Your task to perform on an android device: Search for vegetarian restaurants on Maps Image 0: 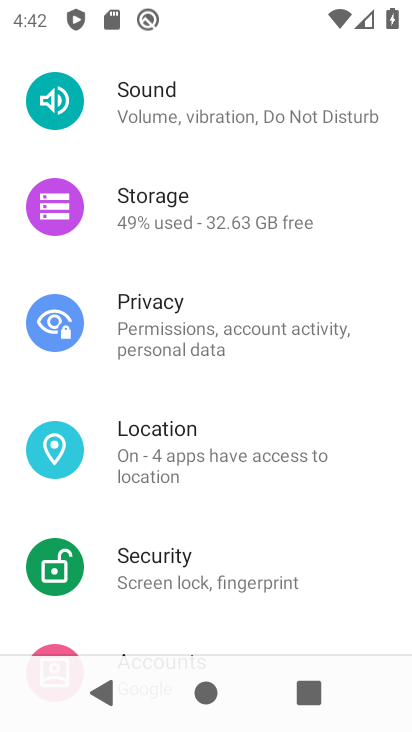
Step 0: press back button
Your task to perform on an android device: Search for vegetarian restaurants on Maps Image 1: 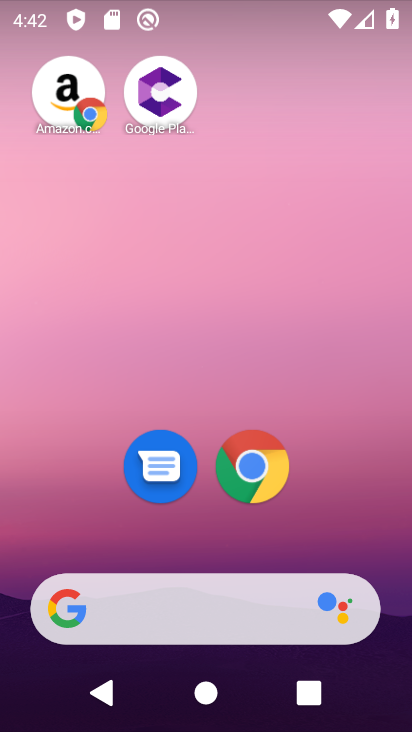
Step 1: drag from (355, 541) to (279, 24)
Your task to perform on an android device: Search for vegetarian restaurants on Maps Image 2: 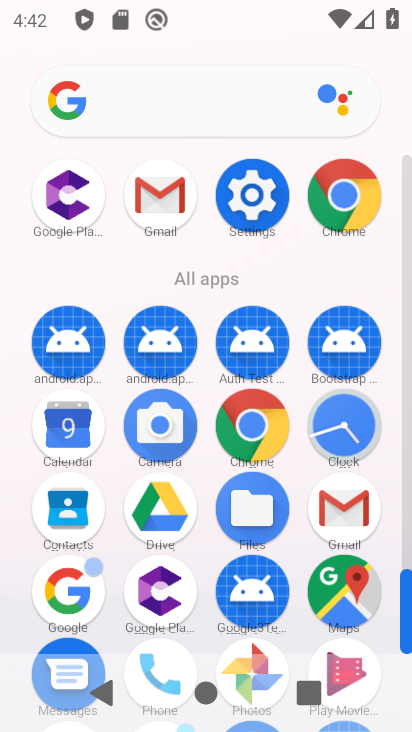
Step 2: drag from (21, 591) to (20, 286)
Your task to perform on an android device: Search for vegetarian restaurants on Maps Image 3: 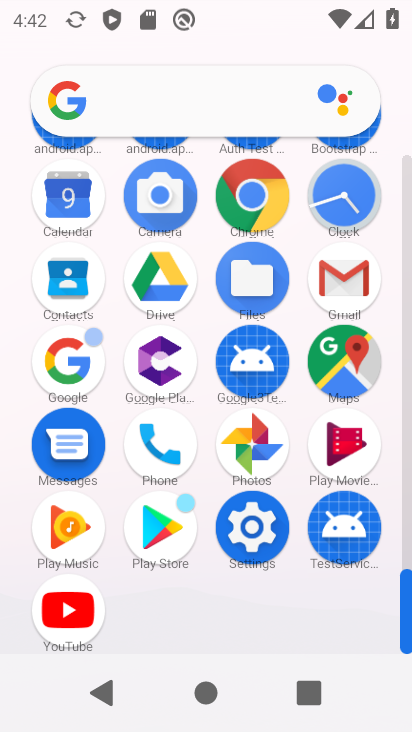
Step 3: click (342, 359)
Your task to perform on an android device: Search for vegetarian restaurants on Maps Image 4: 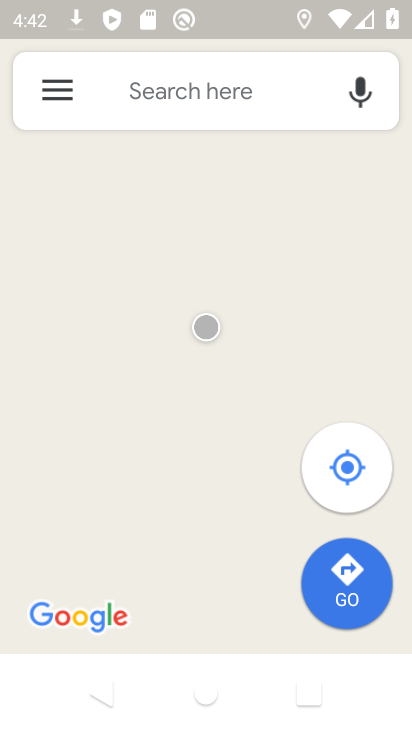
Step 4: click (270, 87)
Your task to perform on an android device: Search for vegetarian restaurants on Maps Image 5: 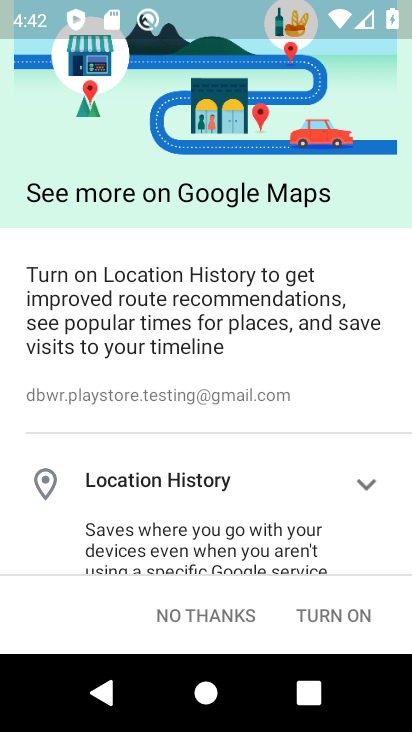
Step 5: click (316, 616)
Your task to perform on an android device: Search for vegetarian restaurants on Maps Image 6: 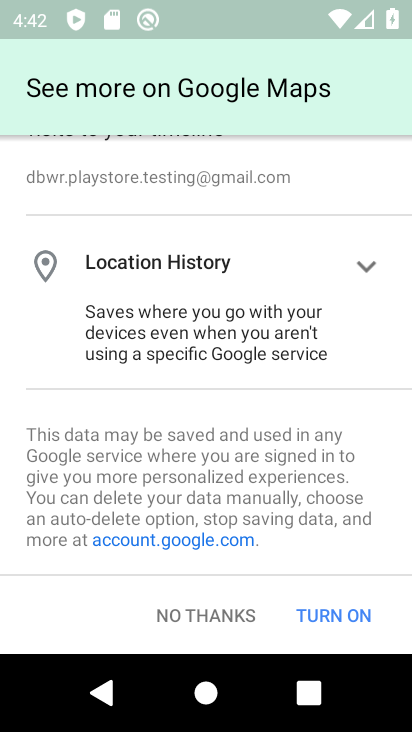
Step 6: click (316, 616)
Your task to perform on an android device: Search for vegetarian restaurants on Maps Image 7: 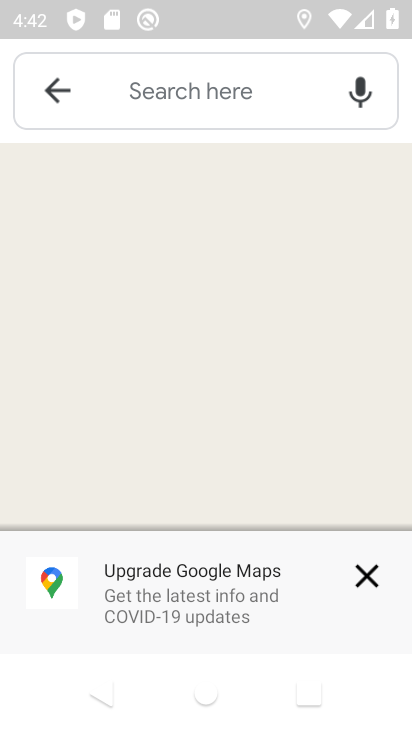
Step 7: click (244, 95)
Your task to perform on an android device: Search for vegetarian restaurants on Maps Image 8: 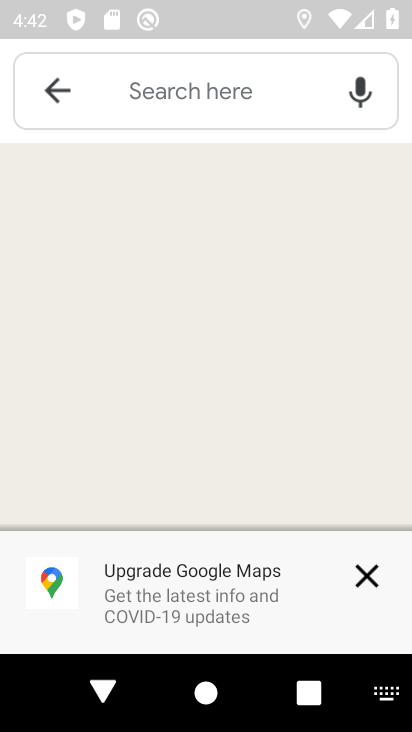
Step 8: type "vegetarian restaurants "
Your task to perform on an android device: Search for vegetarian restaurants on Maps Image 9: 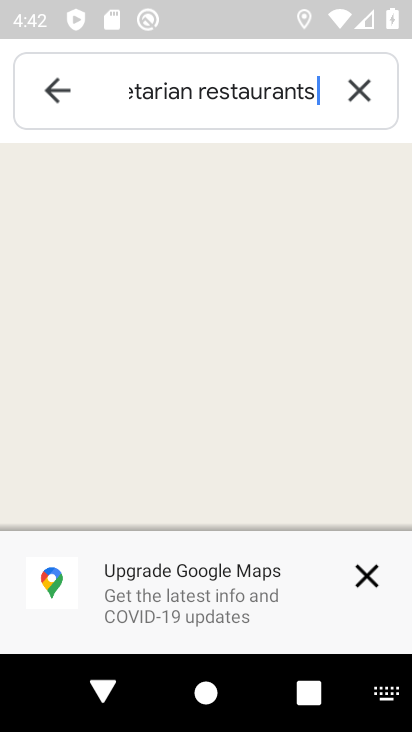
Step 9: type ""
Your task to perform on an android device: Search for vegetarian restaurants on Maps Image 10: 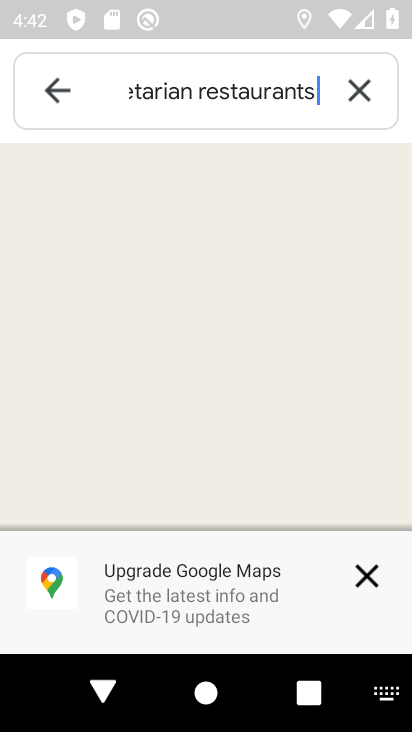
Step 10: type ""
Your task to perform on an android device: Search for vegetarian restaurants on Maps Image 11: 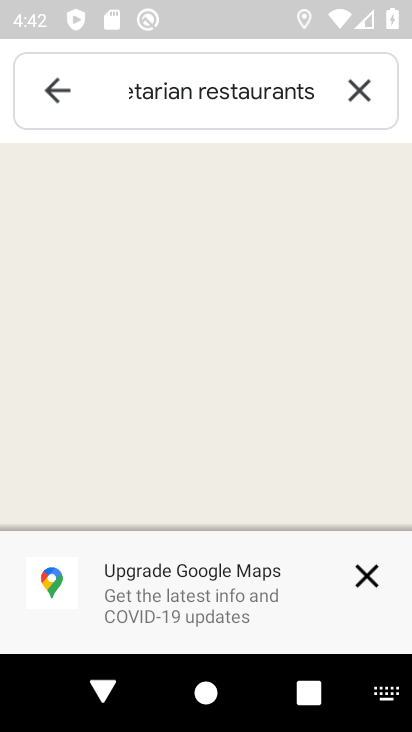
Step 11: click (368, 572)
Your task to perform on an android device: Search for vegetarian restaurants on Maps Image 12: 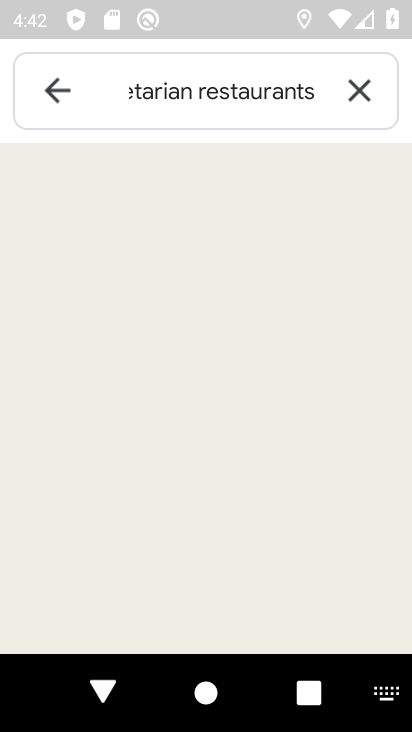
Step 12: click (184, 81)
Your task to perform on an android device: Search for vegetarian restaurants on Maps Image 13: 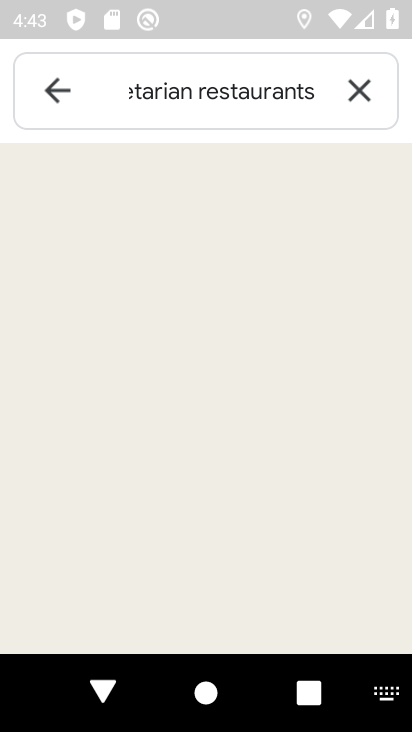
Step 13: click (309, 88)
Your task to perform on an android device: Search for vegetarian restaurants on Maps Image 14: 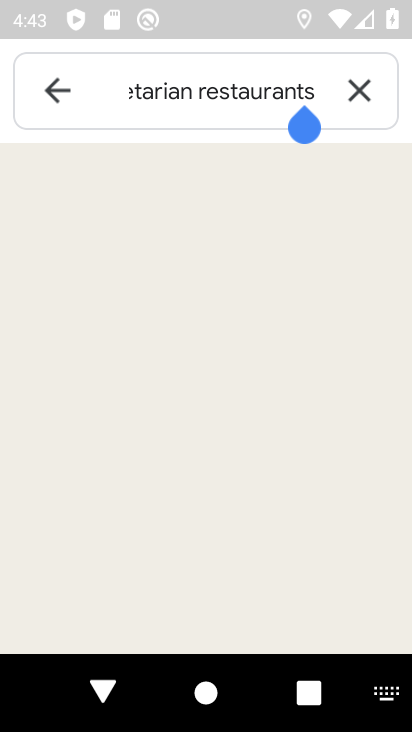
Step 14: drag from (298, 115) to (335, 126)
Your task to perform on an android device: Search for vegetarian restaurants on Maps Image 15: 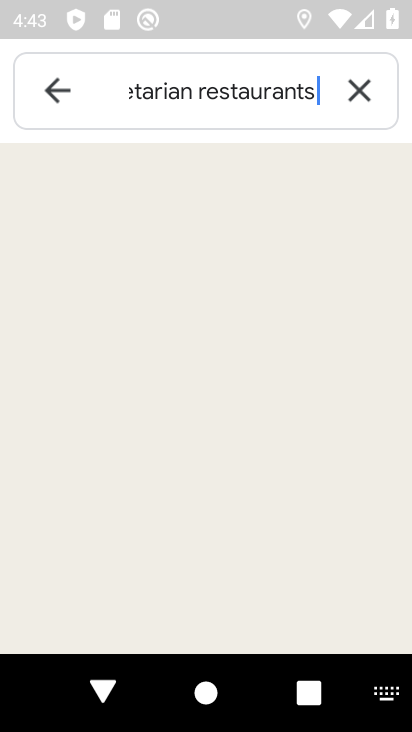
Step 15: click (352, 85)
Your task to perform on an android device: Search for vegetarian restaurants on Maps Image 16: 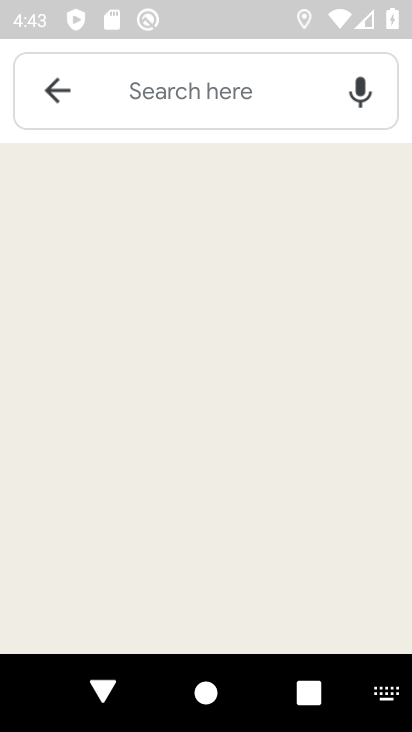
Step 16: click (61, 86)
Your task to perform on an android device: Search for vegetarian restaurants on Maps Image 17: 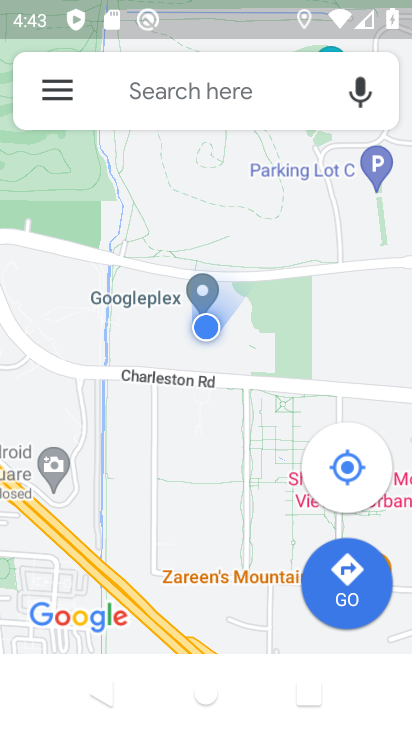
Step 17: click (274, 97)
Your task to perform on an android device: Search for vegetarian restaurants on Maps Image 18: 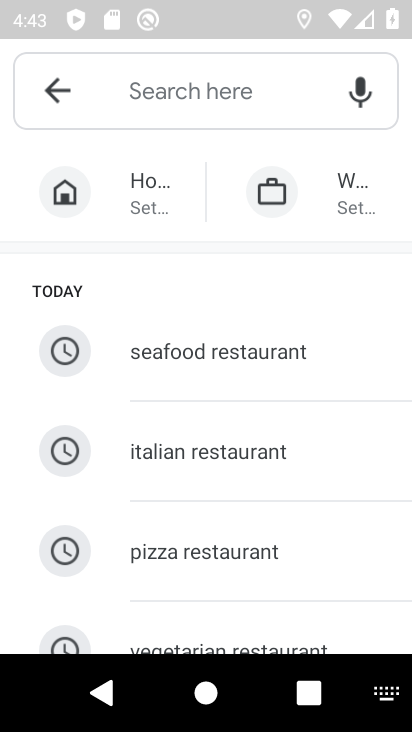
Step 18: drag from (271, 578) to (283, 255)
Your task to perform on an android device: Search for vegetarian restaurants on Maps Image 19: 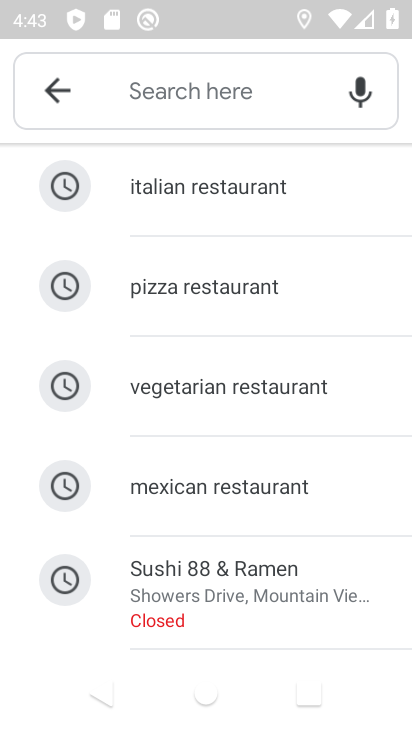
Step 19: click (260, 390)
Your task to perform on an android device: Search for vegetarian restaurants on Maps Image 20: 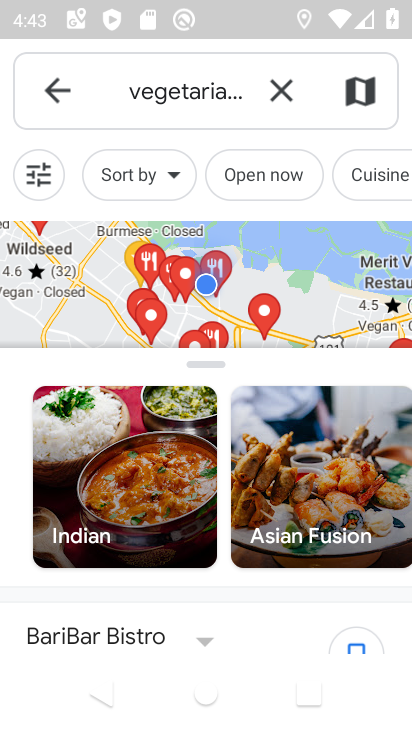
Step 20: task complete